Your task to perform on an android device: check android version Image 0: 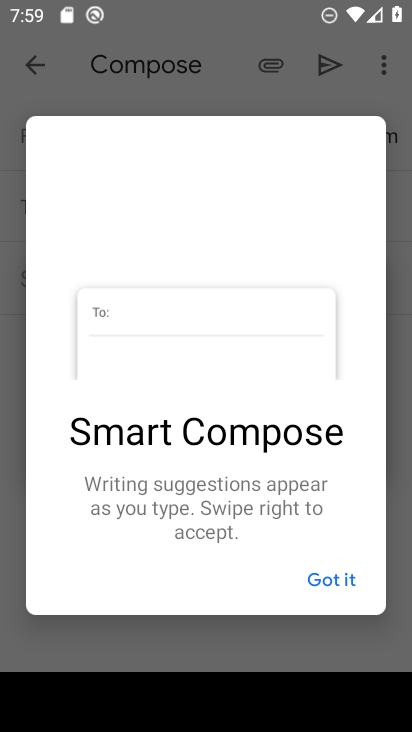
Step 0: press home button
Your task to perform on an android device: check android version Image 1: 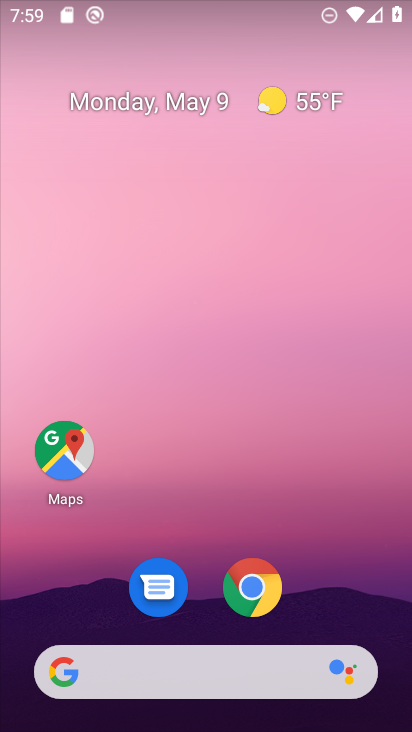
Step 1: drag from (189, 640) to (191, 126)
Your task to perform on an android device: check android version Image 2: 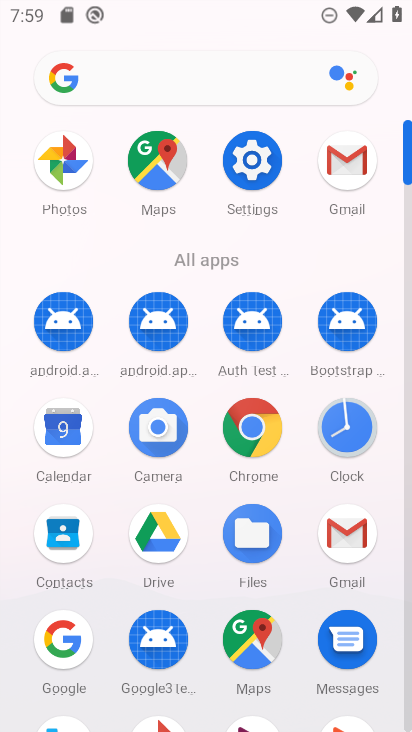
Step 2: click (279, 179)
Your task to perform on an android device: check android version Image 3: 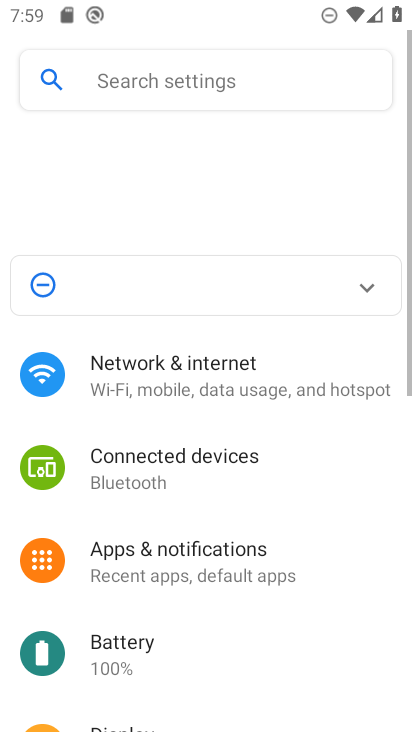
Step 3: drag from (189, 543) to (121, 82)
Your task to perform on an android device: check android version Image 4: 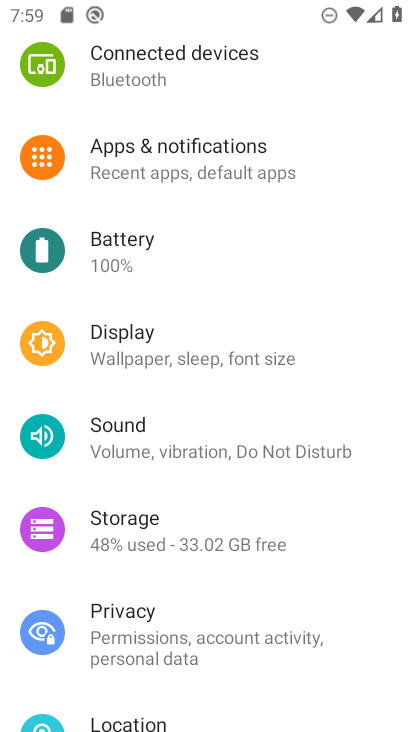
Step 4: drag from (249, 561) to (219, 19)
Your task to perform on an android device: check android version Image 5: 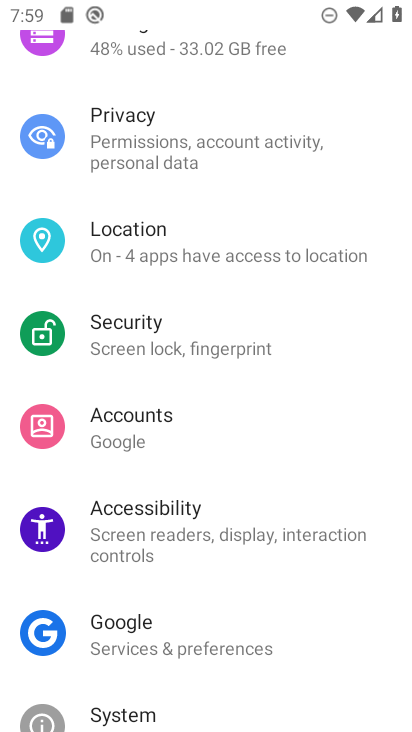
Step 5: drag from (155, 631) to (103, 17)
Your task to perform on an android device: check android version Image 6: 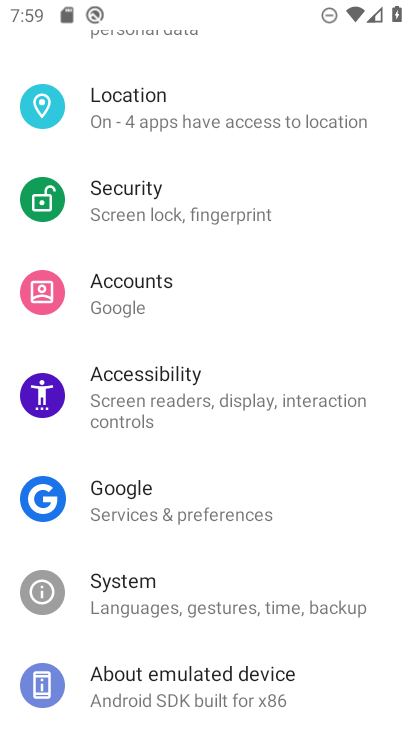
Step 6: click (162, 691)
Your task to perform on an android device: check android version Image 7: 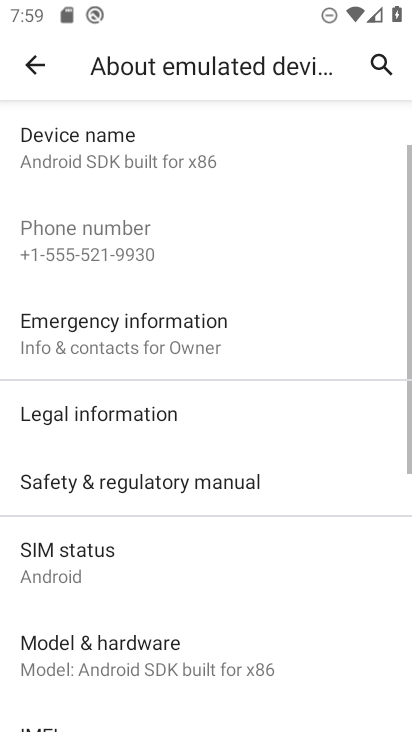
Step 7: drag from (175, 675) to (146, 143)
Your task to perform on an android device: check android version Image 8: 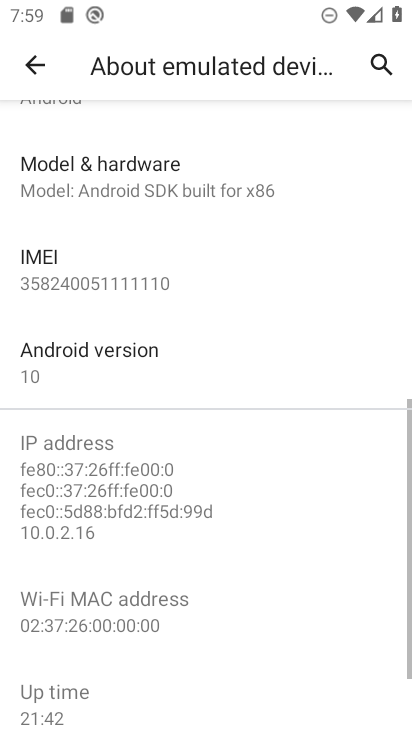
Step 8: click (122, 370)
Your task to perform on an android device: check android version Image 9: 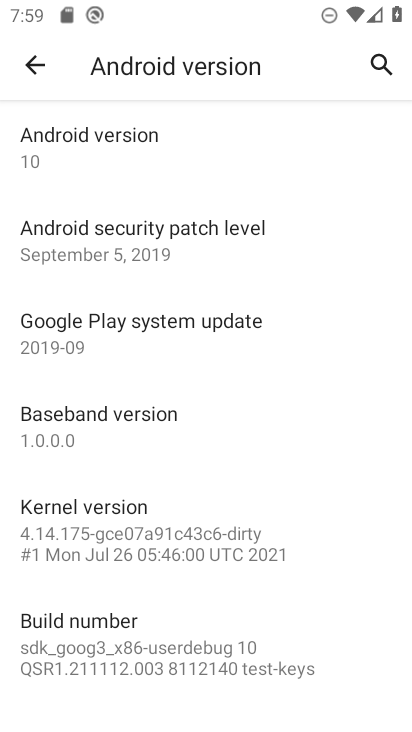
Step 9: task complete